Your task to perform on an android device: read, delete, or share a saved page in the chrome app Image 0: 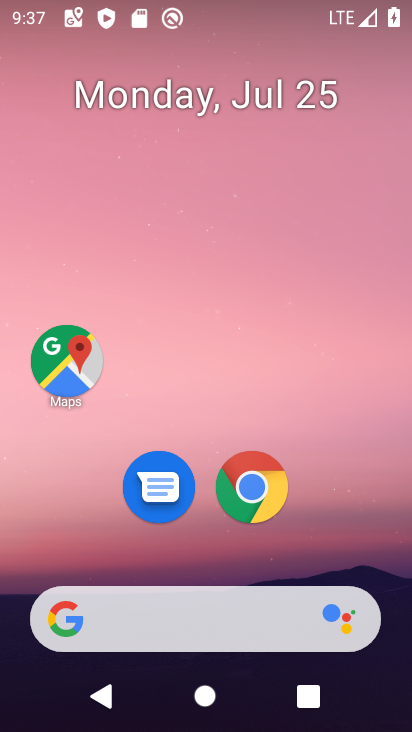
Step 0: click (244, 496)
Your task to perform on an android device: read, delete, or share a saved page in the chrome app Image 1: 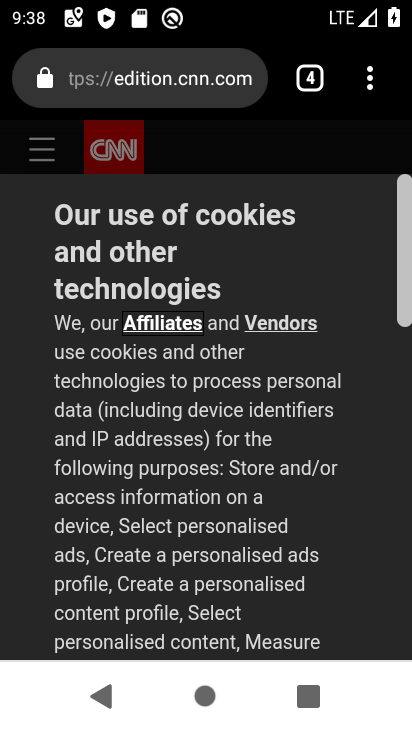
Step 1: drag from (370, 68) to (123, 491)
Your task to perform on an android device: read, delete, or share a saved page in the chrome app Image 2: 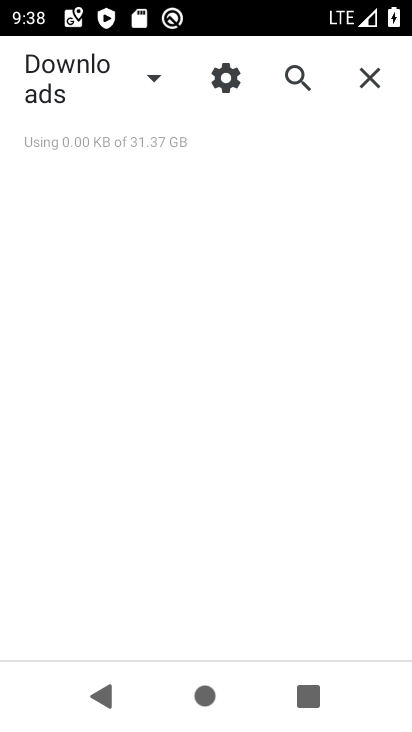
Step 2: click (158, 73)
Your task to perform on an android device: read, delete, or share a saved page in the chrome app Image 3: 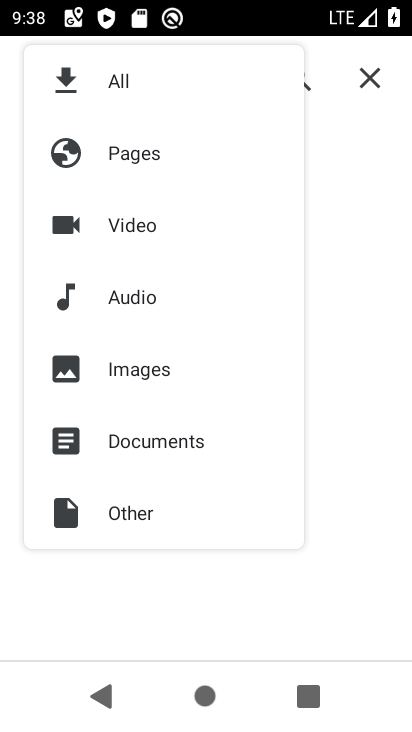
Step 3: click (143, 148)
Your task to perform on an android device: read, delete, or share a saved page in the chrome app Image 4: 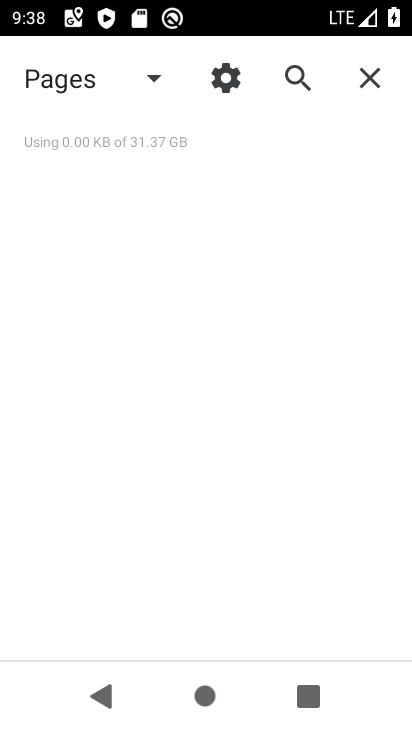
Step 4: task complete